Your task to perform on an android device: find photos in the google photos app Image 0: 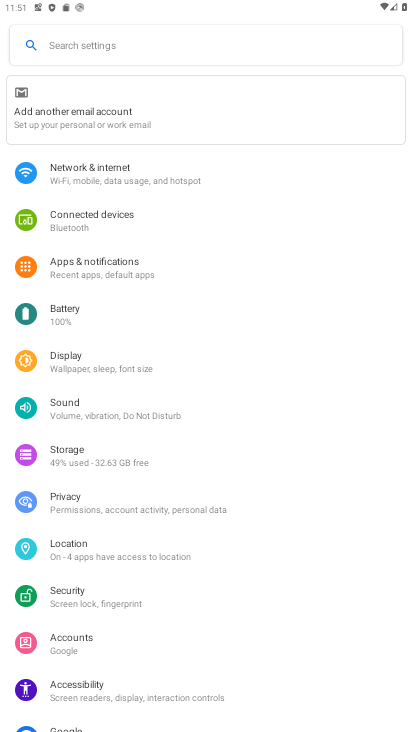
Step 0: press home button
Your task to perform on an android device: find photos in the google photos app Image 1: 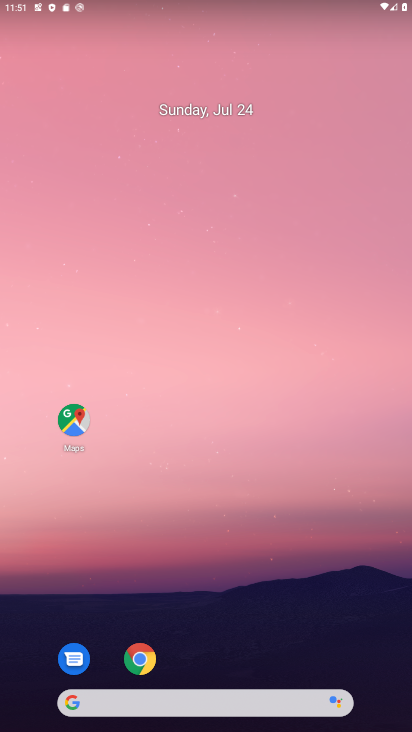
Step 1: drag from (53, 684) to (136, 17)
Your task to perform on an android device: find photos in the google photos app Image 2: 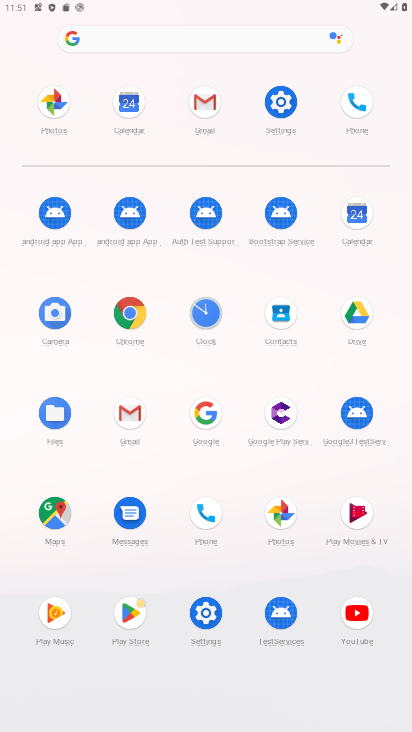
Step 2: click (284, 520)
Your task to perform on an android device: find photos in the google photos app Image 3: 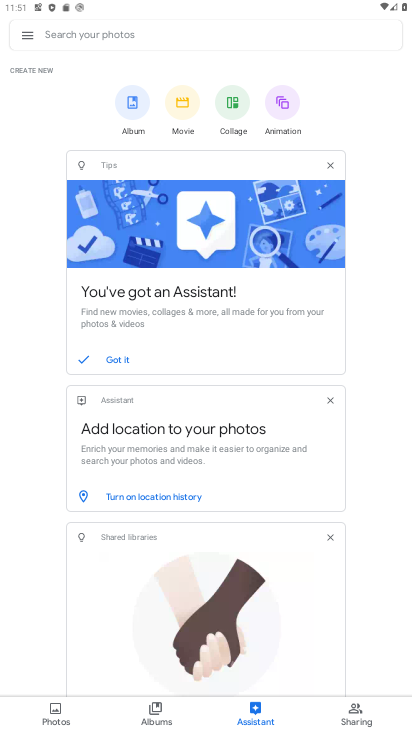
Step 3: click (45, 711)
Your task to perform on an android device: find photos in the google photos app Image 4: 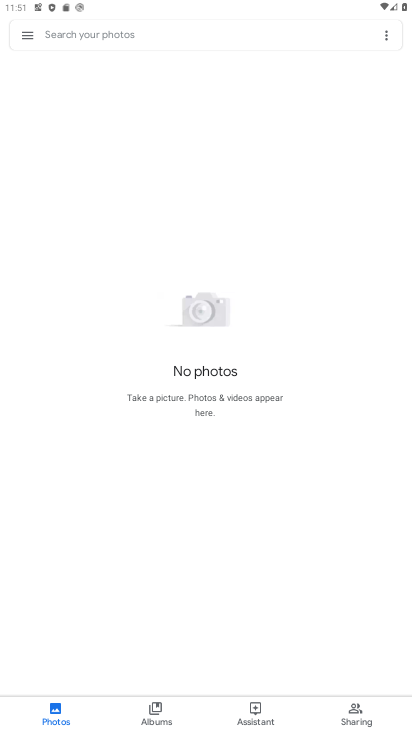
Step 4: task complete